Your task to perform on an android device: change the clock display to analog Image 0: 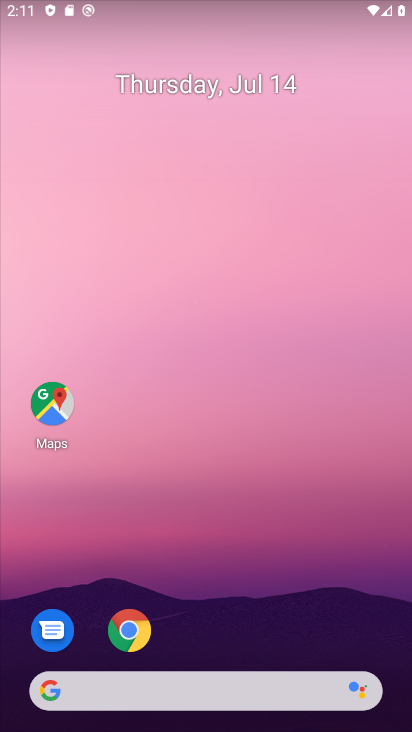
Step 0: press home button
Your task to perform on an android device: change the clock display to analog Image 1: 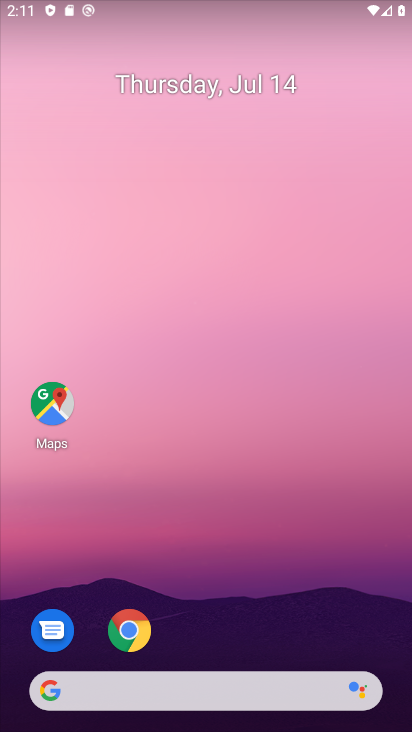
Step 1: drag from (213, 650) to (264, 9)
Your task to perform on an android device: change the clock display to analog Image 2: 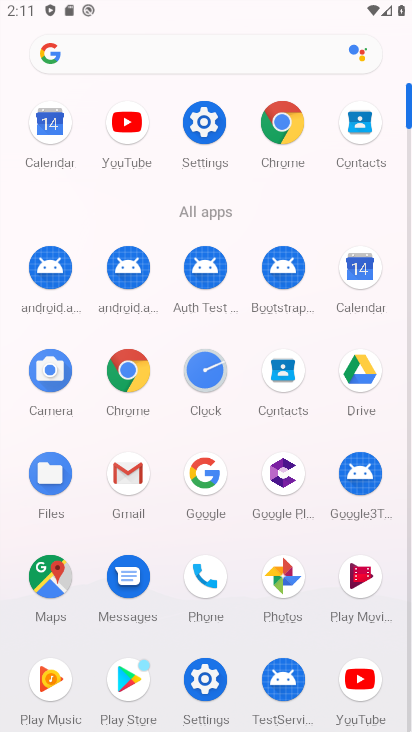
Step 2: click (205, 363)
Your task to perform on an android device: change the clock display to analog Image 3: 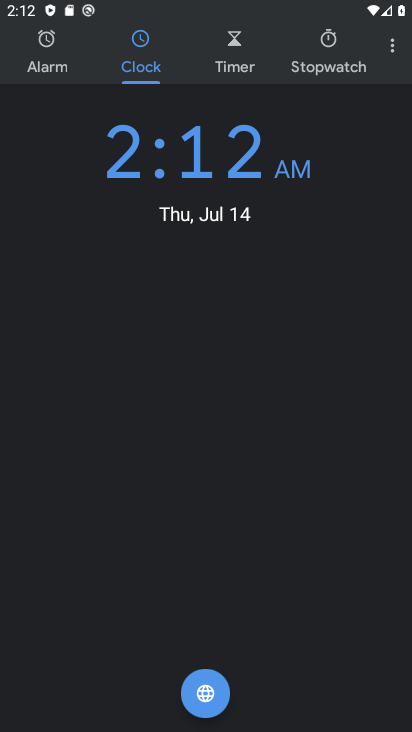
Step 3: click (389, 38)
Your task to perform on an android device: change the clock display to analog Image 4: 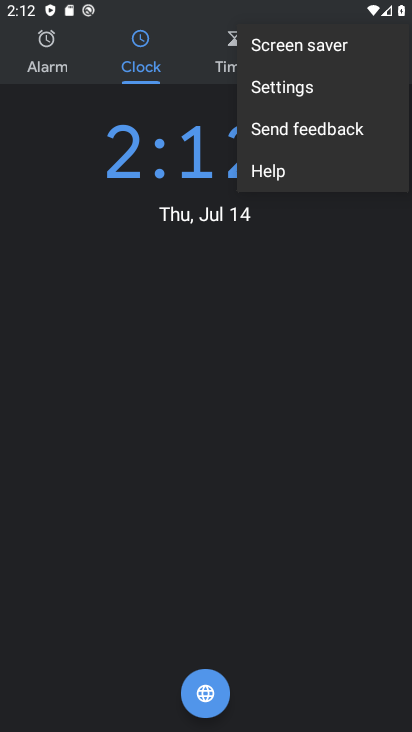
Step 4: click (327, 86)
Your task to perform on an android device: change the clock display to analog Image 5: 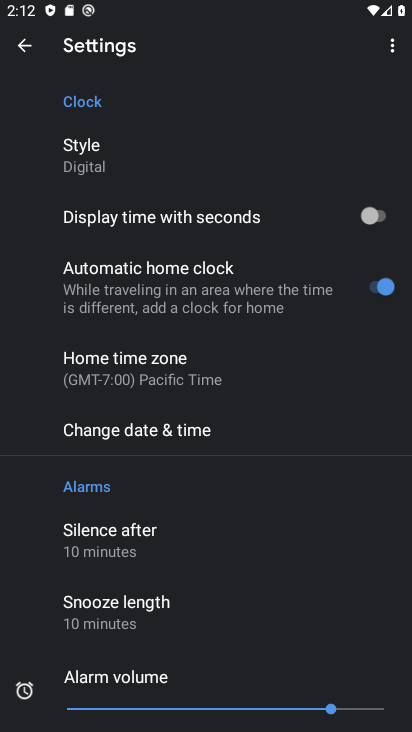
Step 5: click (114, 162)
Your task to perform on an android device: change the clock display to analog Image 6: 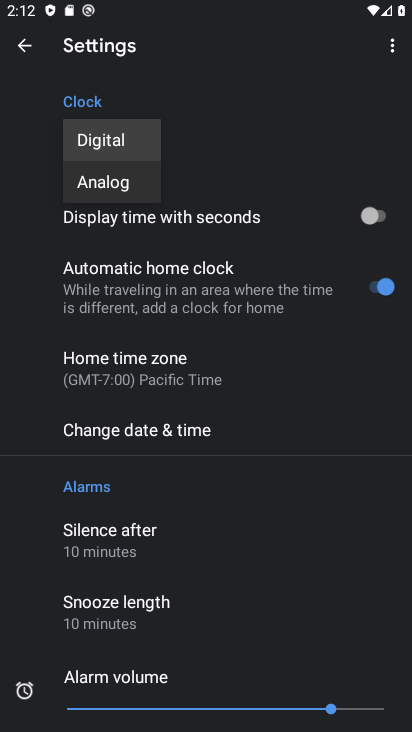
Step 6: click (138, 186)
Your task to perform on an android device: change the clock display to analog Image 7: 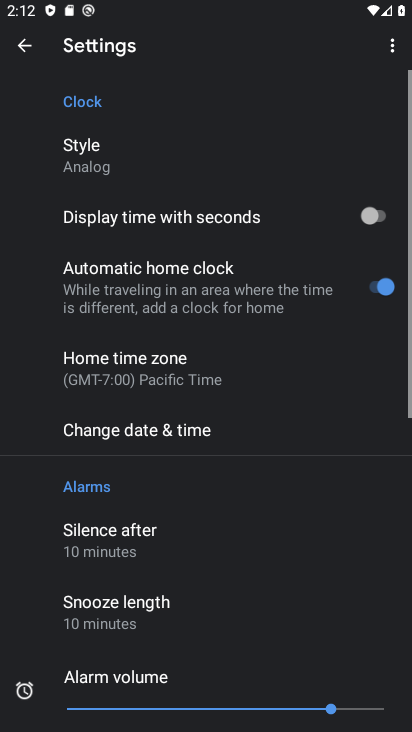
Step 7: task complete